Your task to perform on an android device: Go to Android settings Image 0: 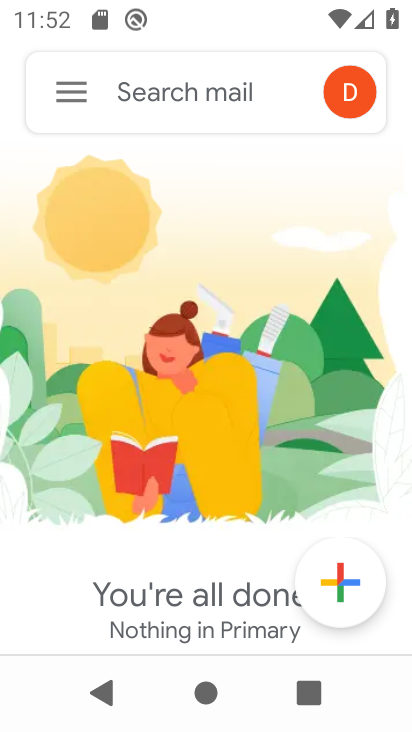
Step 0: press home button
Your task to perform on an android device: Go to Android settings Image 1: 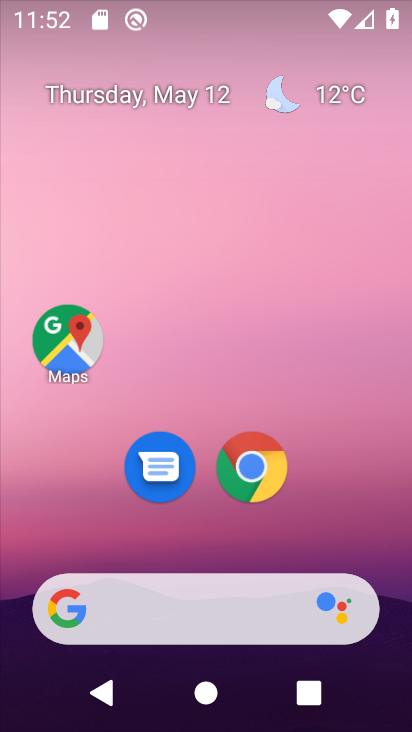
Step 1: drag from (344, 512) to (232, 66)
Your task to perform on an android device: Go to Android settings Image 2: 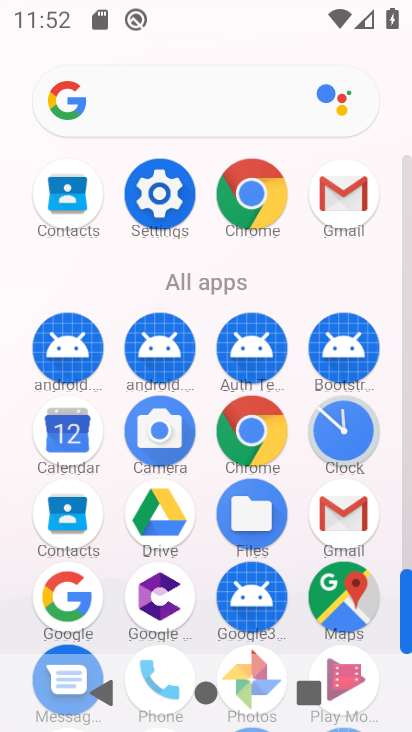
Step 2: click (173, 188)
Your task to perform on an android device: Go to Android settings Image 3: 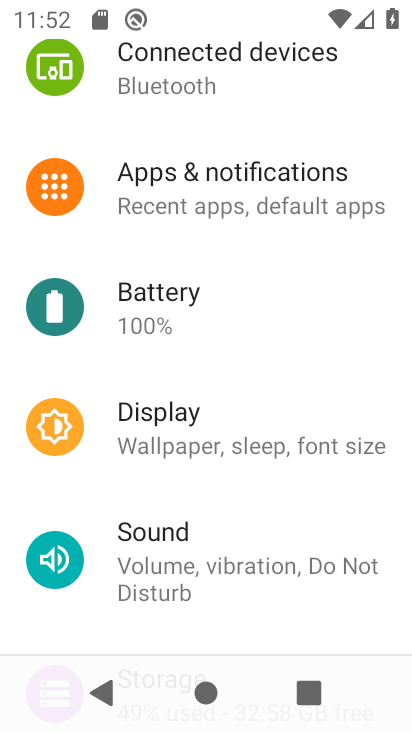
Step 3: drag from (272, 614) to (241, 3)
Your task to perform on an android device: Go to Android settings Image 4: 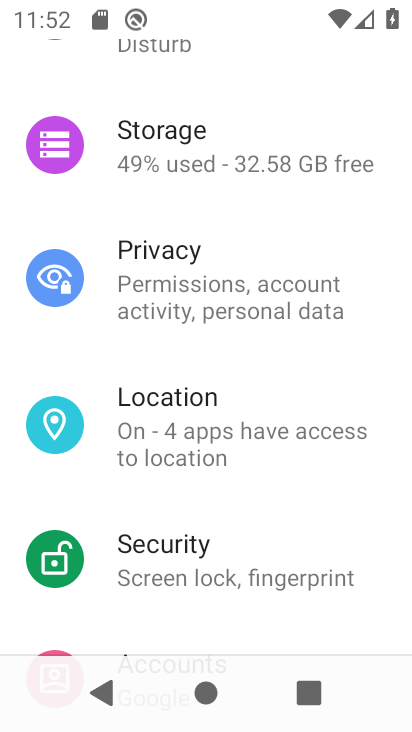
Step 4: drag from (248, 566) to (231, 66)
Your task to perform on an android device: Go to Android settings Image 5: 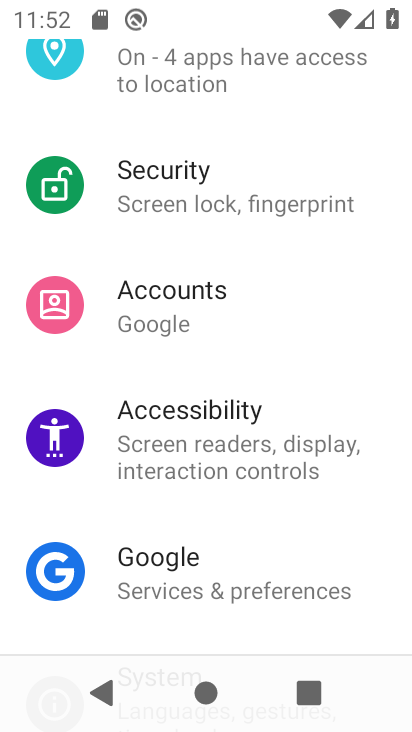
Step 5: drag from (225, 561) to (212, 113)
Your task to perform on an android device: Go to Android settings Image 6: 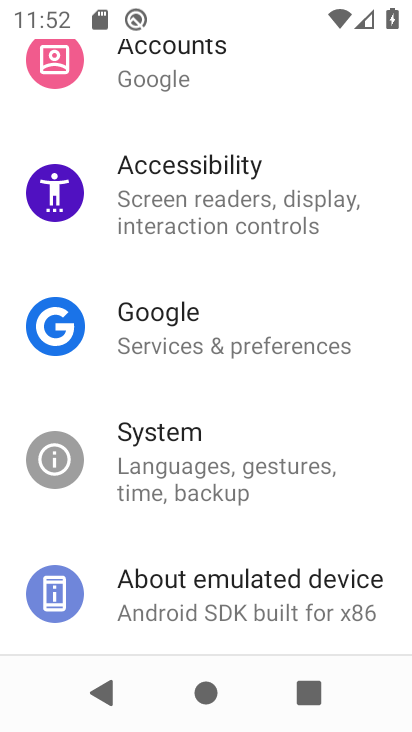
Step 6: click (224, 591)
Your task to perform on an android device: Go to Android settings Image 7: 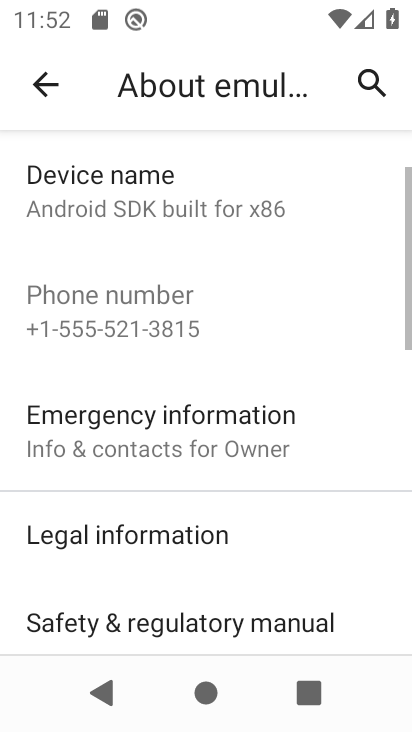
Step 7: drag from (191, 569) to (190, 67)
Your task to perform on an android device: Go to Android settings Image 8: 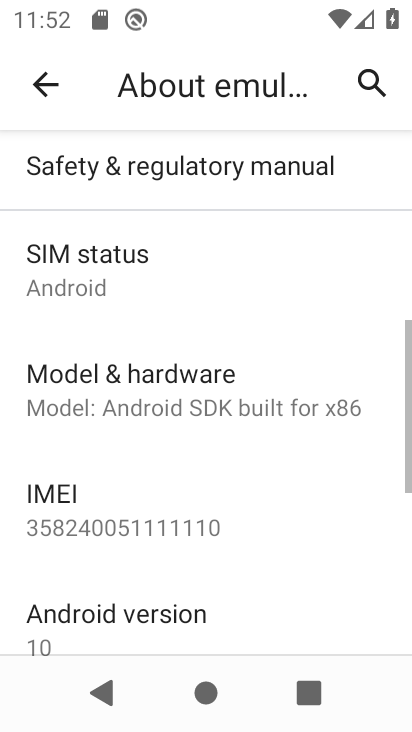
Step 8: click (129, 599)
Your task to perform on an android device: Go to Android settings Image 9: 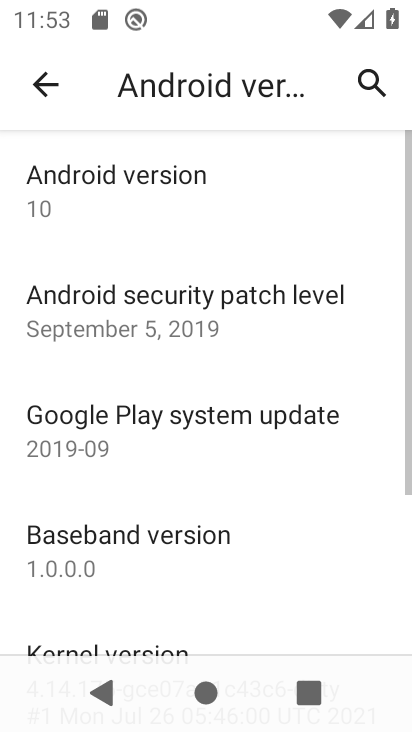
Step 9: task complete